Your task to perform on an android device: set default search engine in the chrome app Image 0: 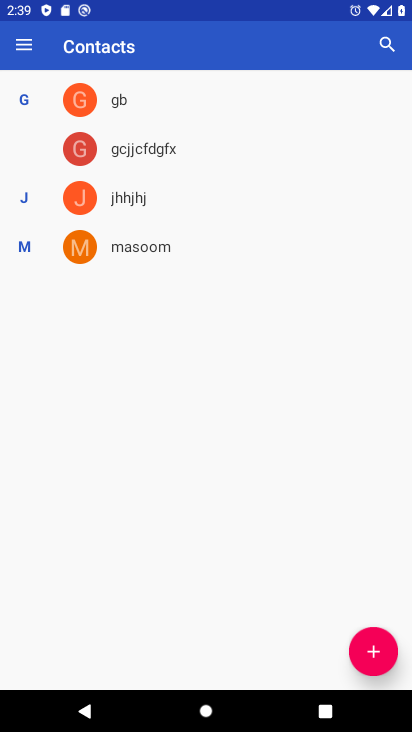
Step 0: press home button
Your task to perform on an android device: set default search engine in the chrome app Image 1: 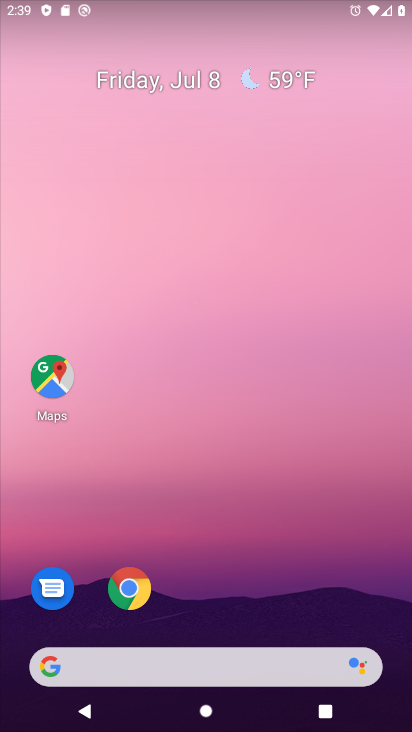
Step 1: drag from (200, 508) to (171, 43)
Your task to perform on an android device: set default search engine in the chrome app Image 2: 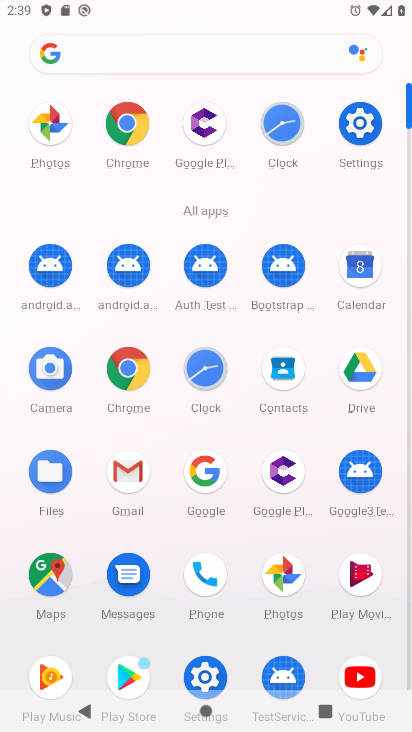
Step 2: click (129, 384)
Your task to perform on an android device: set default search engine in the chrome app Image 3: 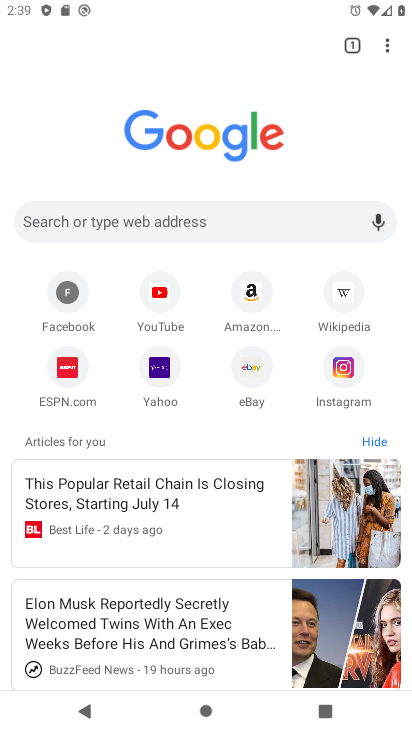
Step 3: click (385, 37)
Your task to perform on an android device: set default search engine in the chrome app Image 4: 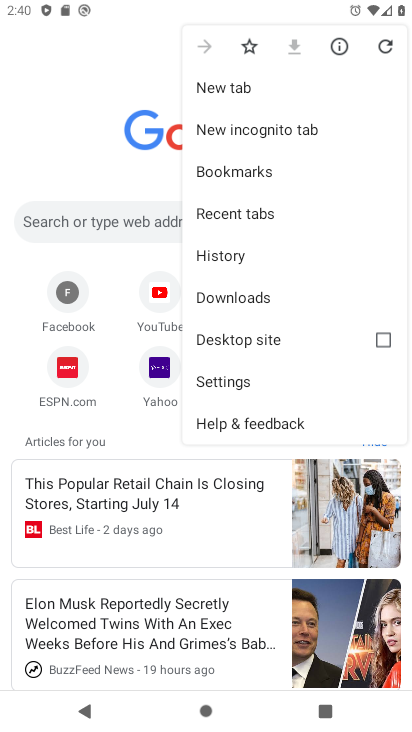
Step 4: click (238, 380)
Your task to perform on an android device: set default search engine in the chrome app Image 5: 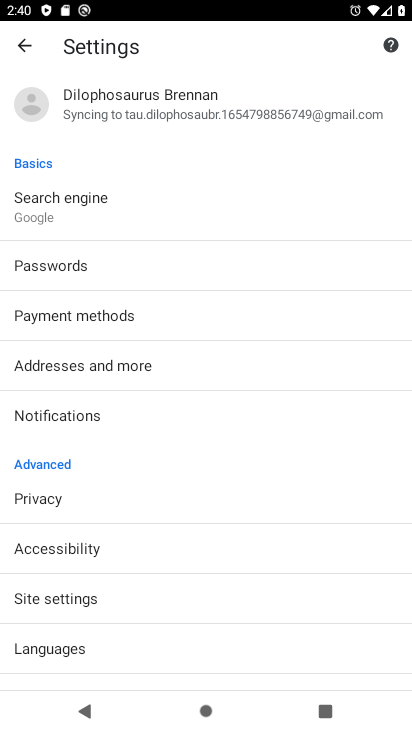
Step 5: click (108, 206)
Your task to perform on an android device: set default search engine in the chrome app Image 6: 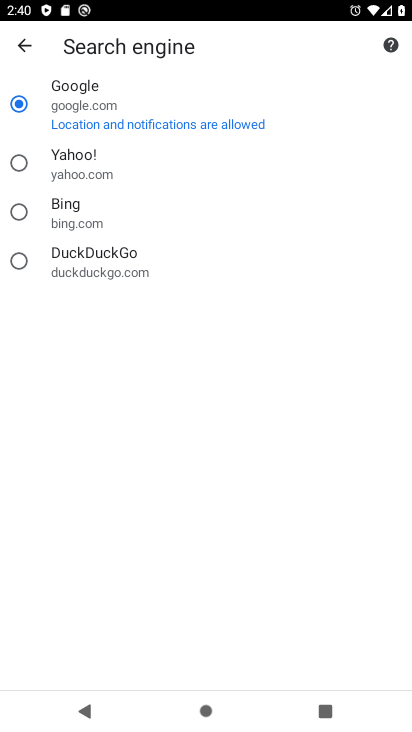
Step 6: click (254, 120)
Your task to perform on an android device: set default search engine in the chrome app Image 7: 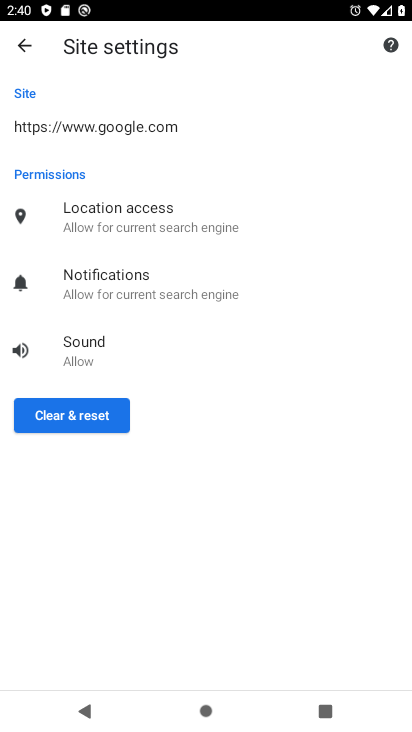
Step 7: task complete